Your task to perform on an android device: What's a good restaurant in San Francisco? Image 0: 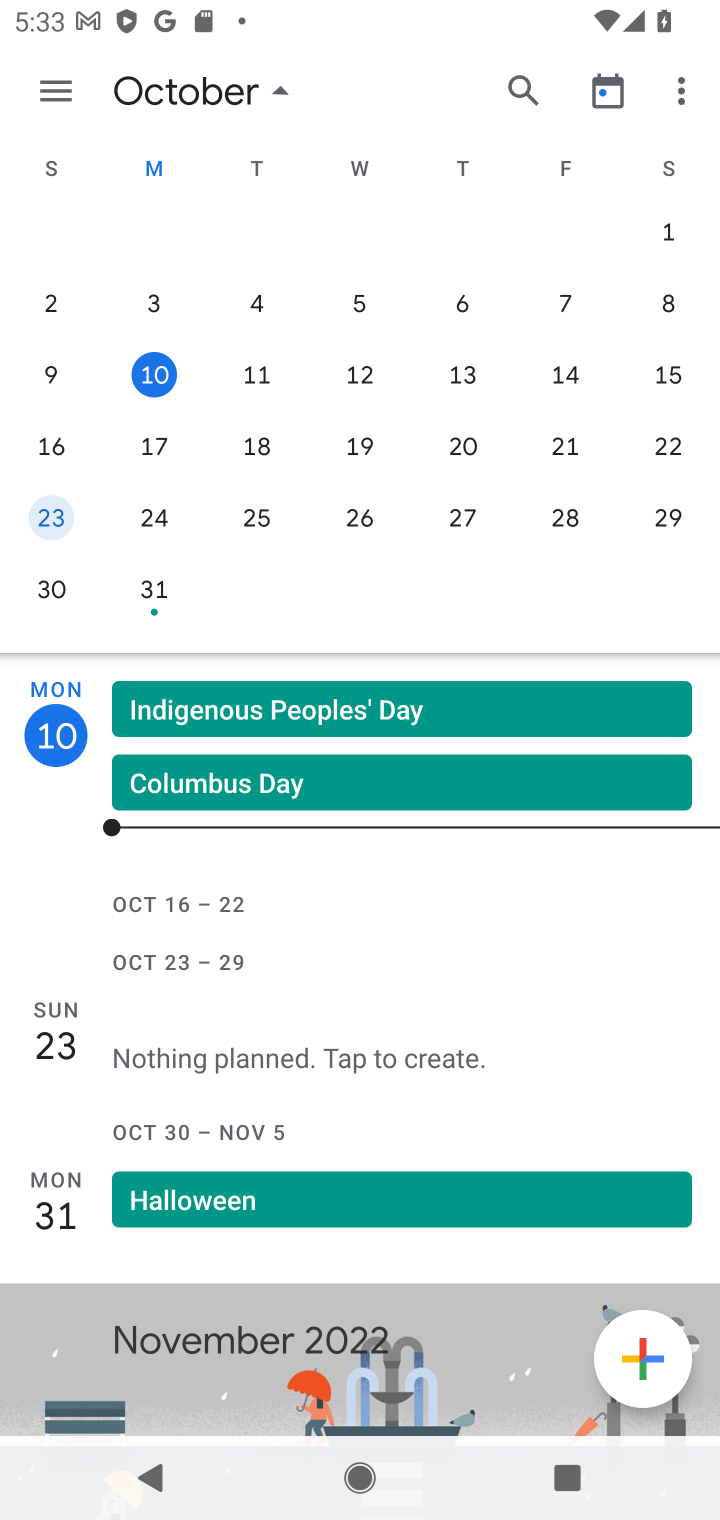
Step 0: press home button
Your task to perform on an android device: What's a good restaurant in San Francisco? Image 1: 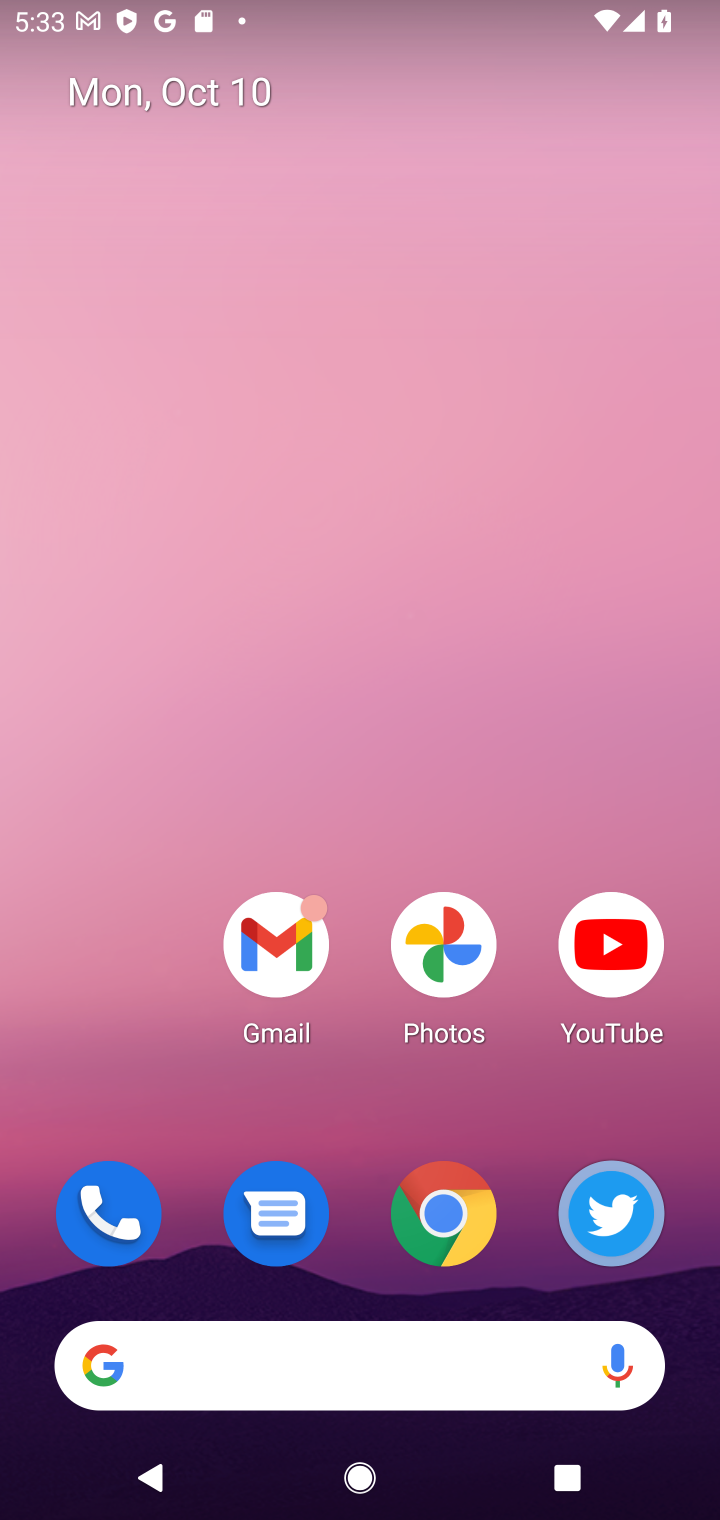
Step 1: click (232, 1330)
Your task to perform on an android device: What's a good restaurant in San Francisco? Image 2: 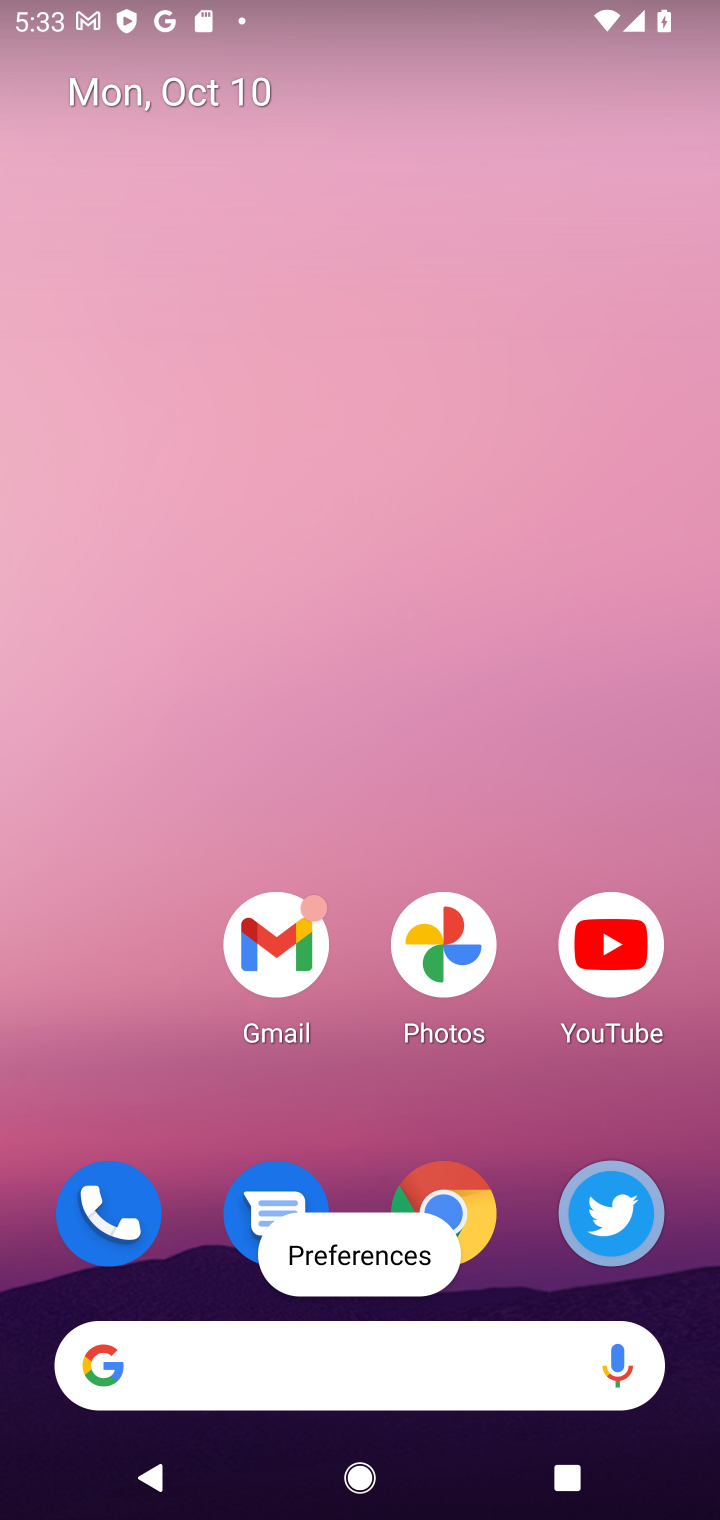
Step 2: click (233, 1366)
Your task to perform on an android device: What's a good restaurant in San Francisco? Image 3: 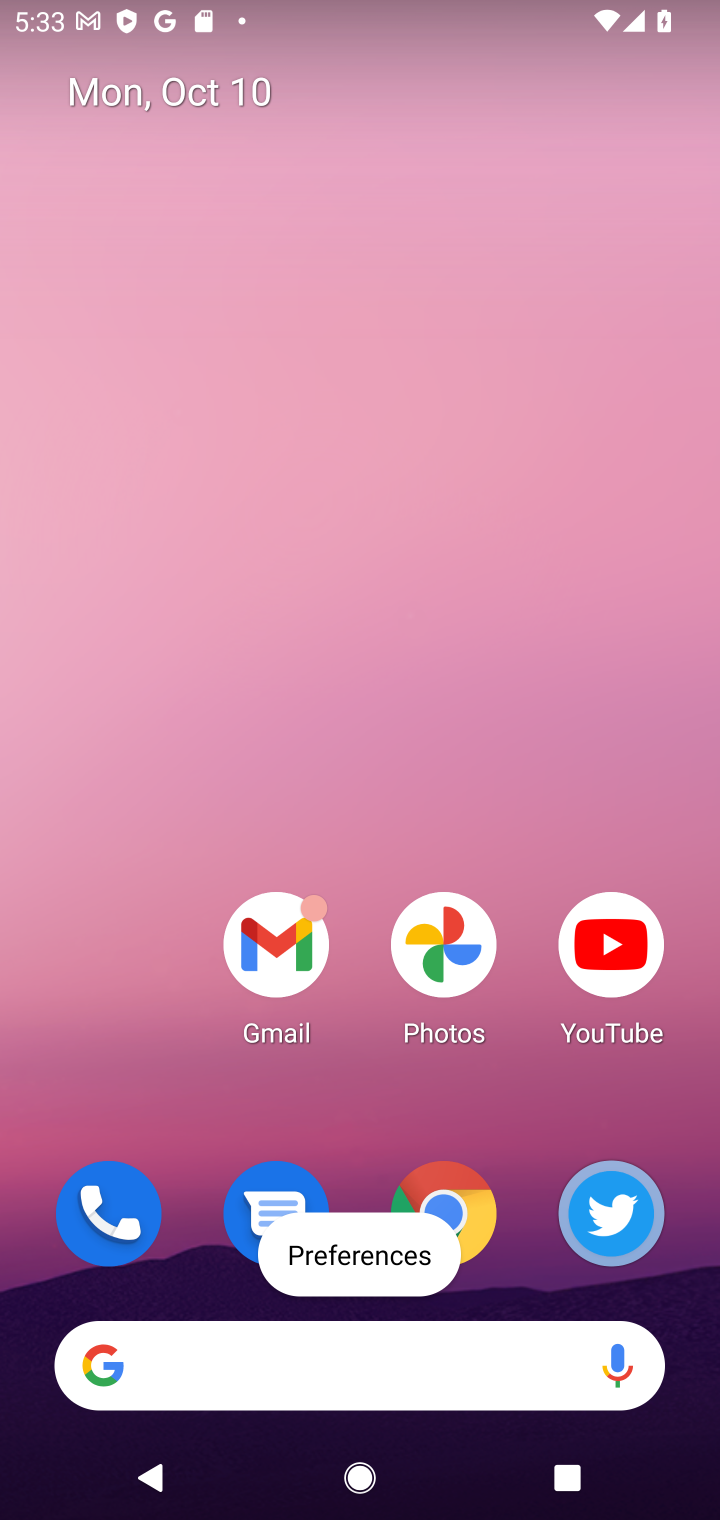
Step 3: click (276, 1347)
Your task to perform on an android device: What's a good restaurant in San Francisco? Image 4: 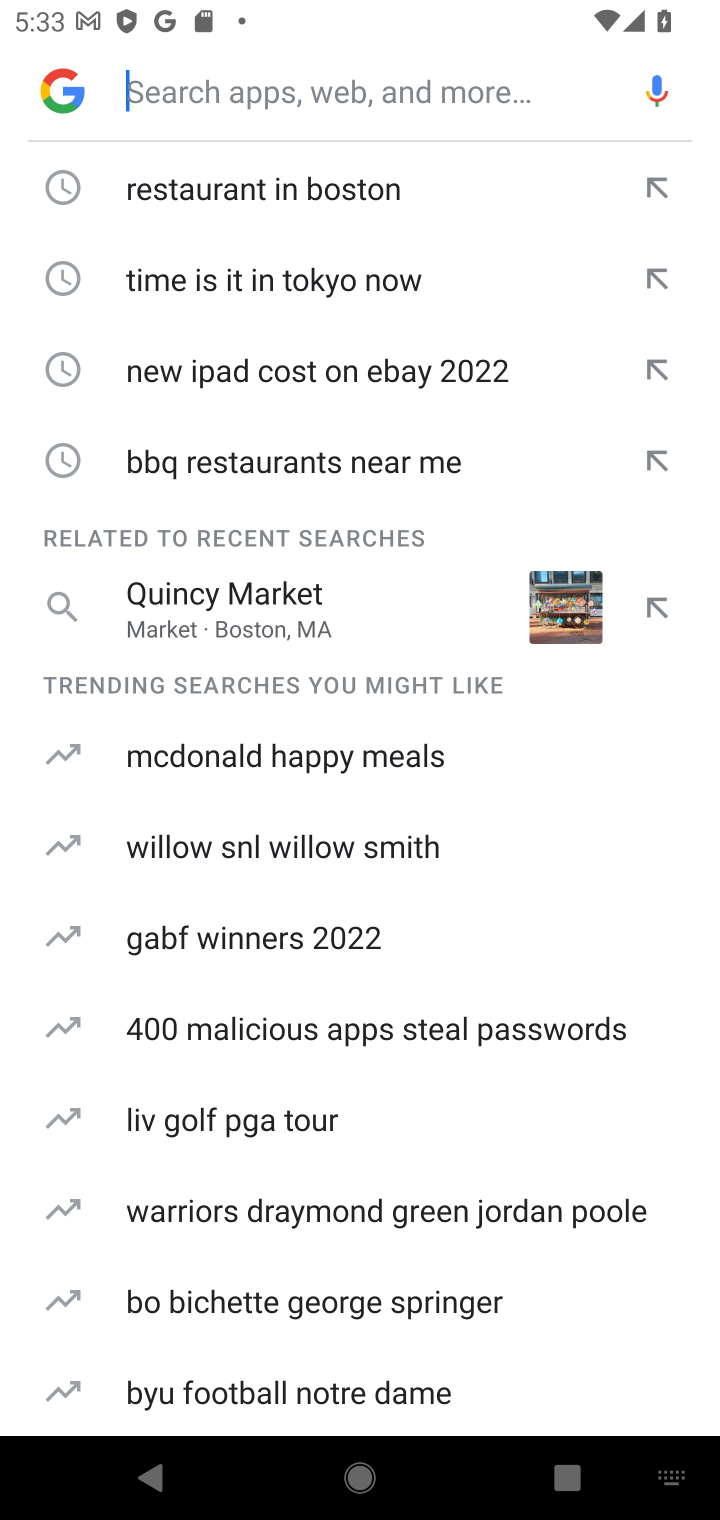
Step 4: type "good restaurant in San Francisco"
Your task to perform on an android device: What's a good restaurant in San Francisco? Image 5: 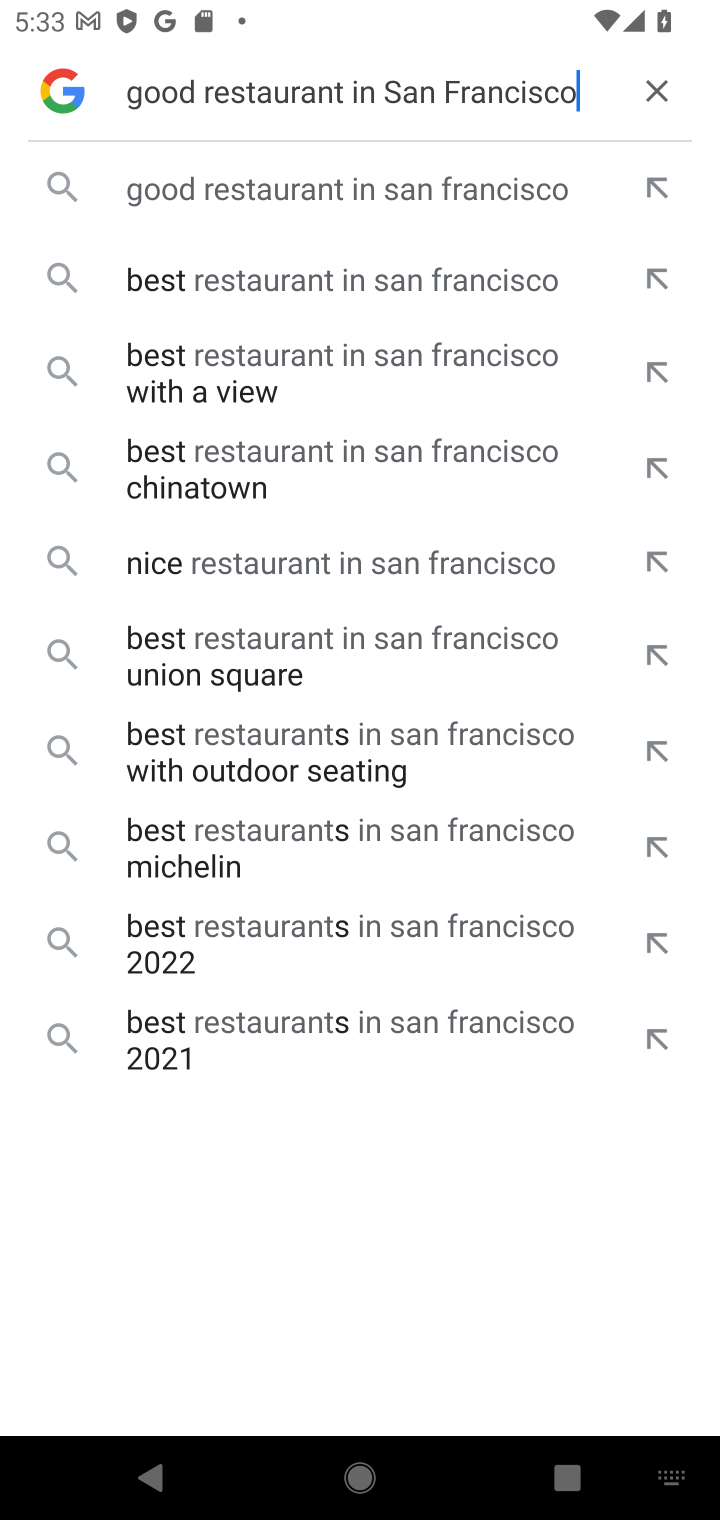
Step 5: click (348, 180)
Your task to perform on an android device: What's a good restaurant in San Francisco? Image 6: 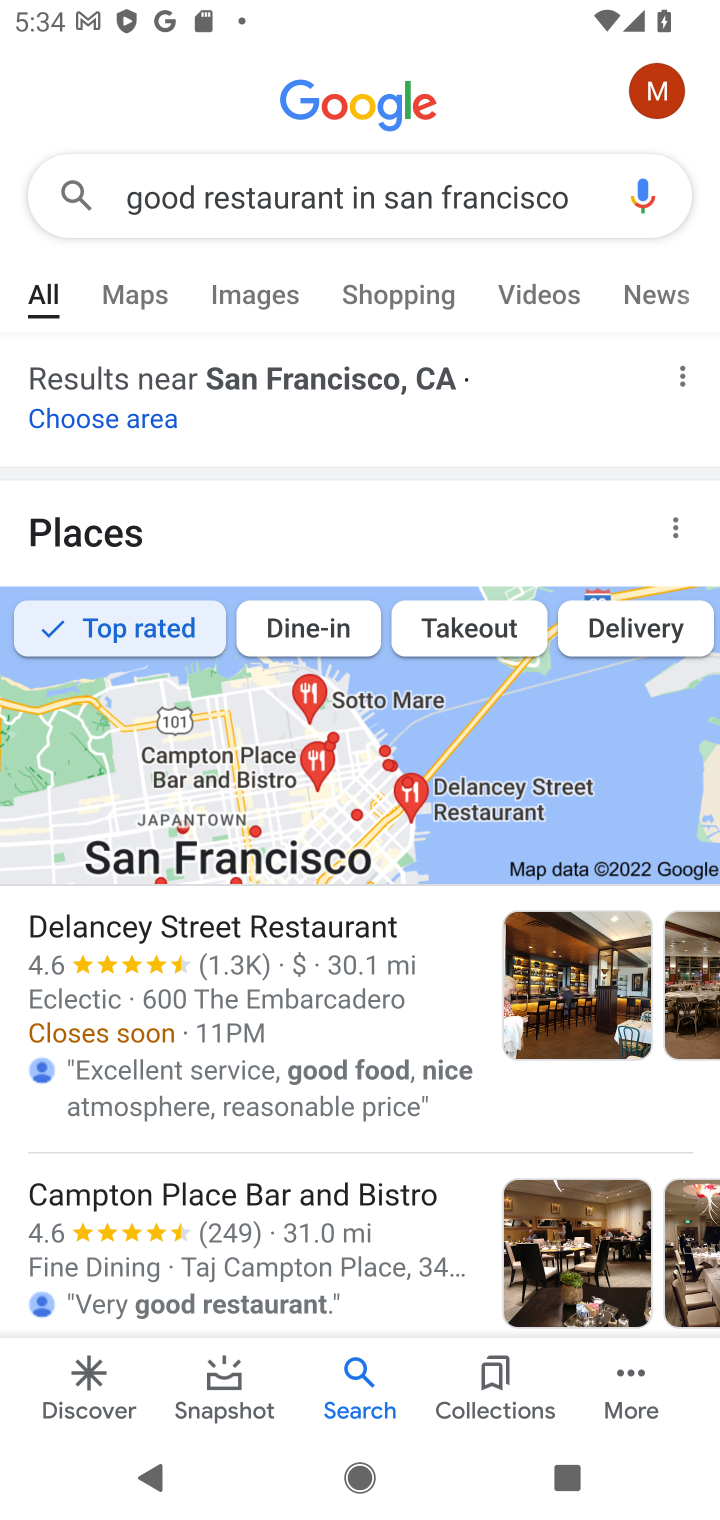
Step 6: task complete